Your task to perform on an android device: Open network settings Image 0: 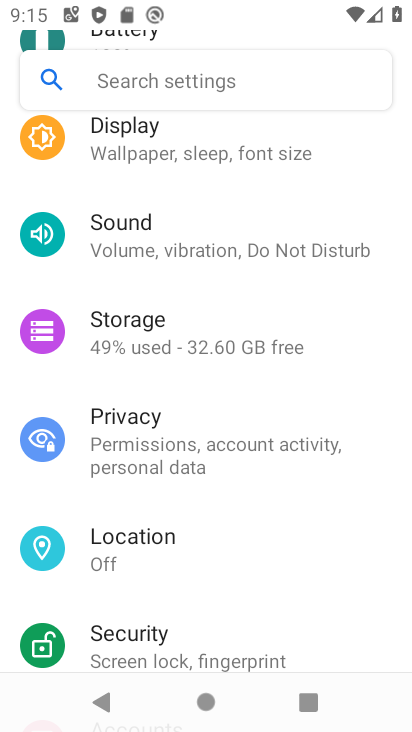
Step 0: drag from (178, 184) to (206, 577)
Your task to perform on an android device: Open network settings Image 1: 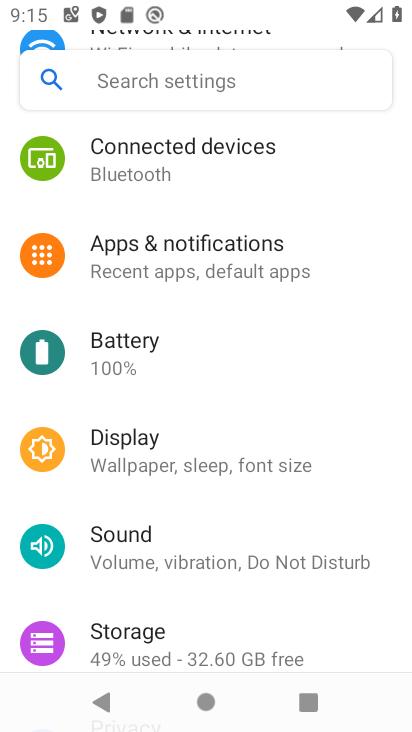
Step 1: drag from (168, 174) to (178, 622)
Your task to perform on an android device: Open network settings Image 2: 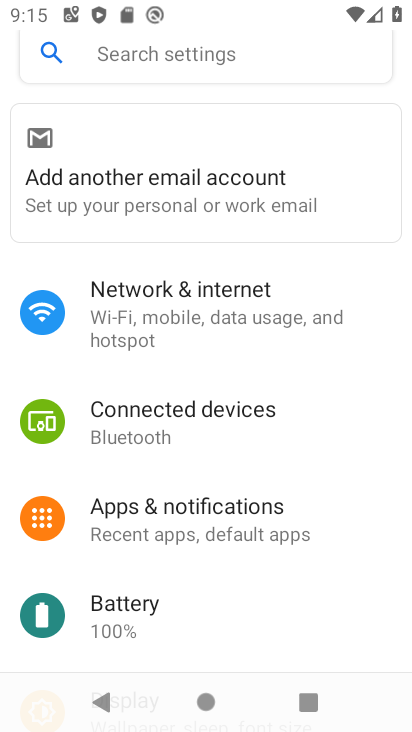
Step 2: click (194, 319)
Your task to perform on an android device: Open network settings Image 3: 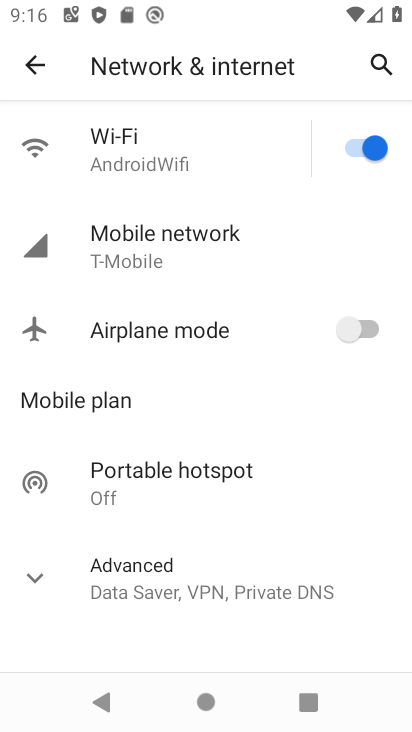
Step 3: task complete